Your task to perform on an android device: turn smart compose on in the gmail app Image 0: 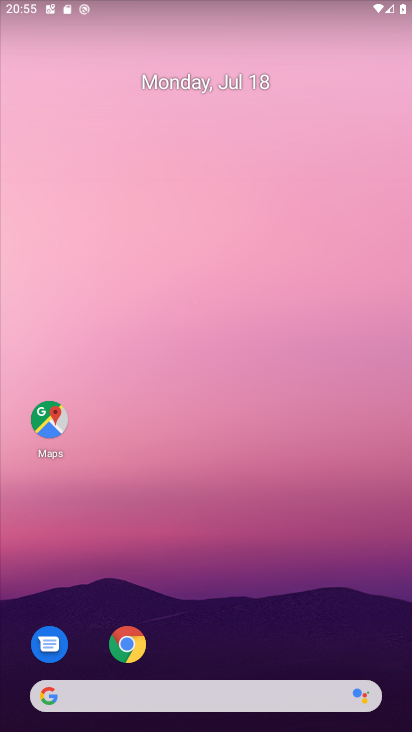
Step 0: click (127, 636)
Your task to perform on an android device: turn smart compose on in the gmail app Image 1: 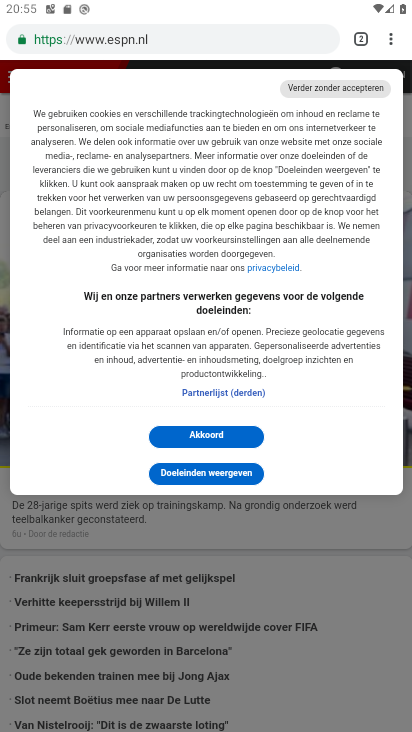
Step 1: press home button
Your task to perform on an android device: turn smart compose on in the gmail app Image 2: 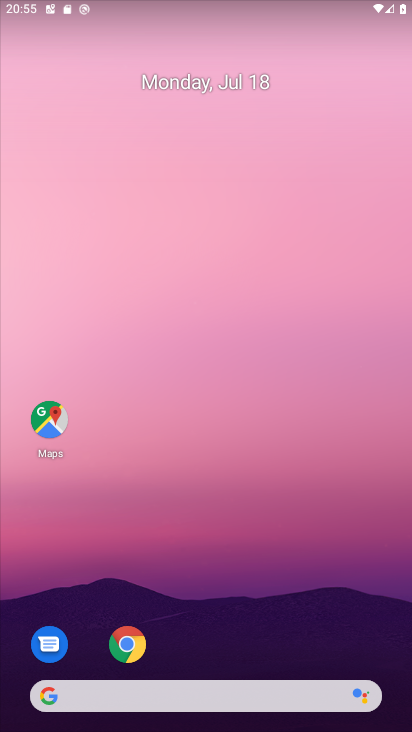
Step 2: drag from (215, 640) to (192, 236)
Your task to perform on an android device: turn smart compose on in the gmail app Image 3: 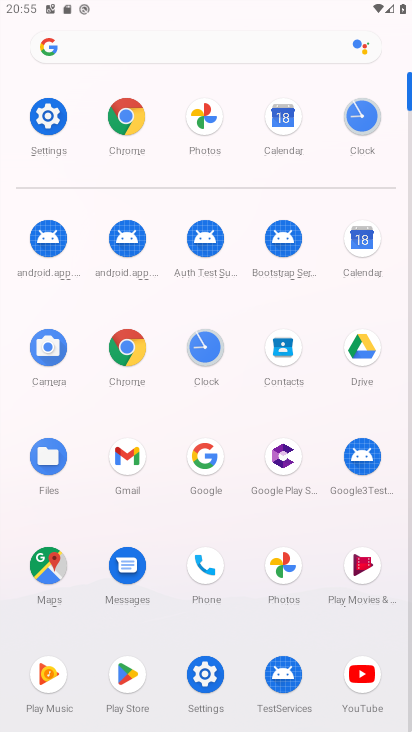
Step 3: click (117, 470)
Your task to perform on an android device: turn smart compose on in the gmail app Image 4: 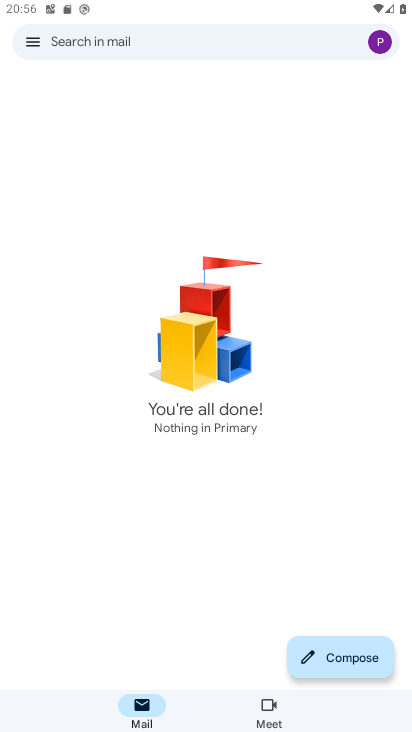
Step 4: task complete